Your task to perform on an android device: Open Reddit.com Image 0: 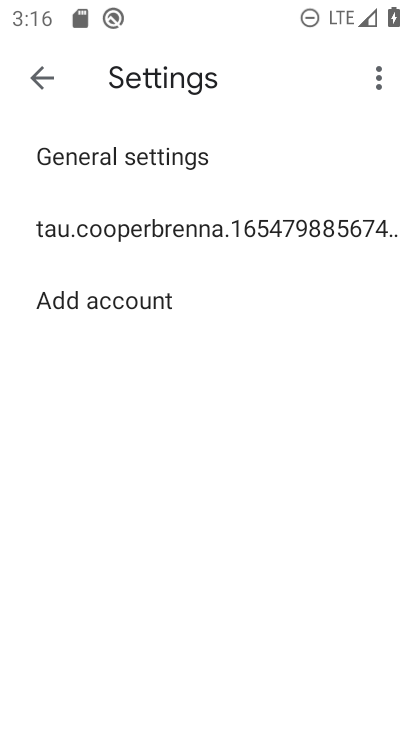
Step 0: press home button
Your task to perform on an android device: Open Reddit.com Image 1: 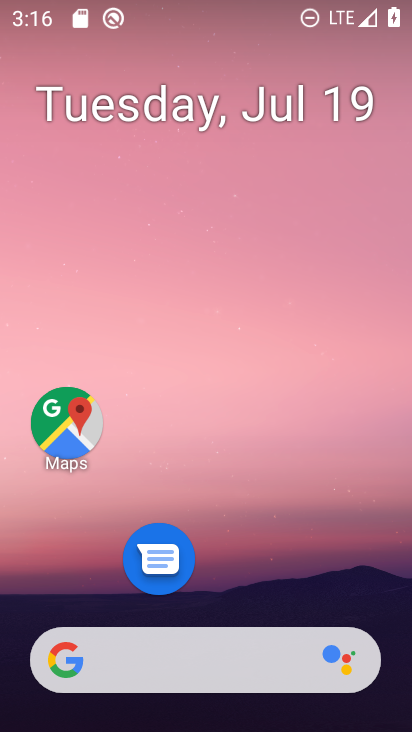
Step 1: drag from (161, 634) to (396, 1)
Your task to perform on an android device: Open Reddit.com Image 2: 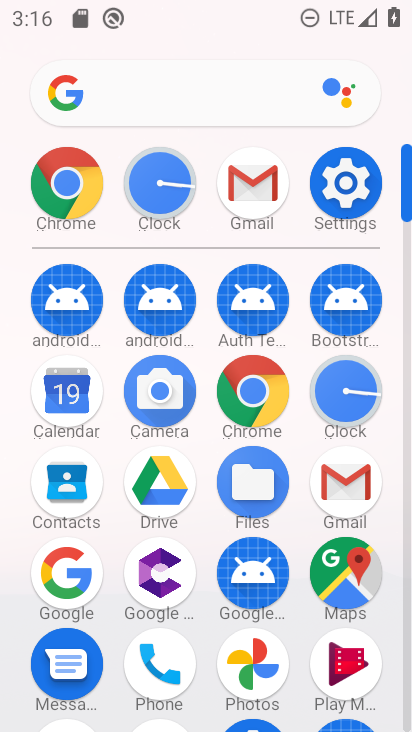
Step 2: click (92, 183)
Your task to perform on an android device: Open Reddit.com Image 3: 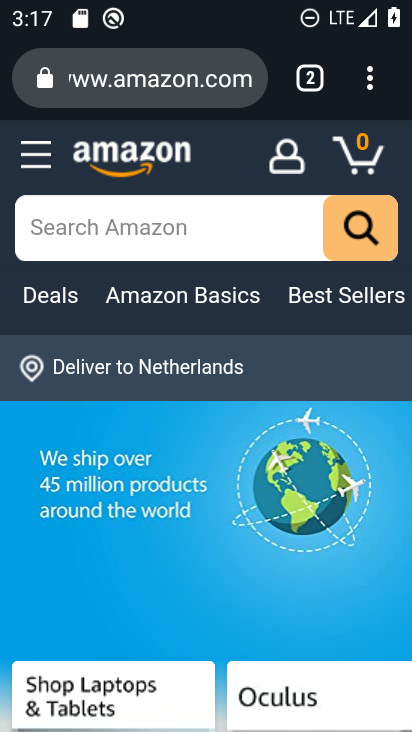
Step 3: click (185, 84)
Your task to perform on an android device: Open Reddit.com Image 4: 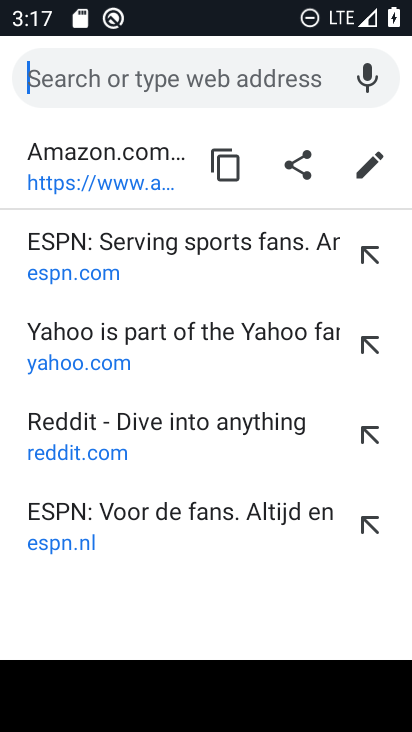
Step 4: type "reddit"
Your task to perform on an android device: Open Reddit.com Image 5: 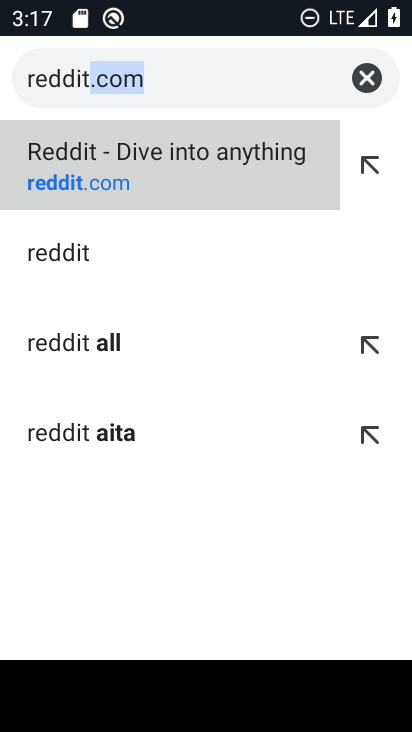
Step 5: click (235, 172)
Your task to perform on an android device: Open Reddit.com Image 6: 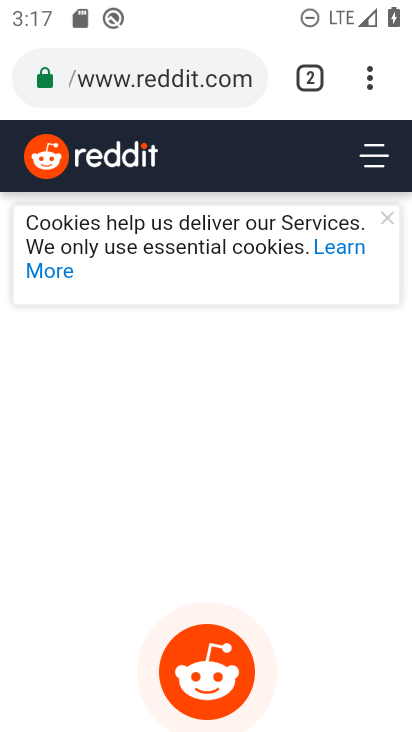
Step 6: task complete